Your task to perform on an android device: Is it going to rain today? Image 0: 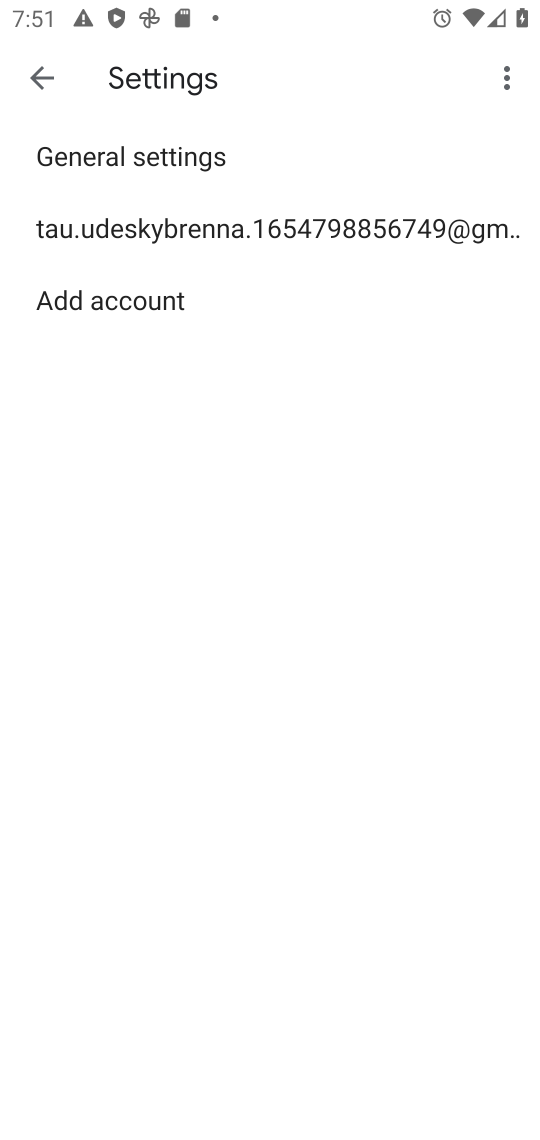
Step 0: press home button
Your task to perform on an android device: Is it going to rain today? Image 1: 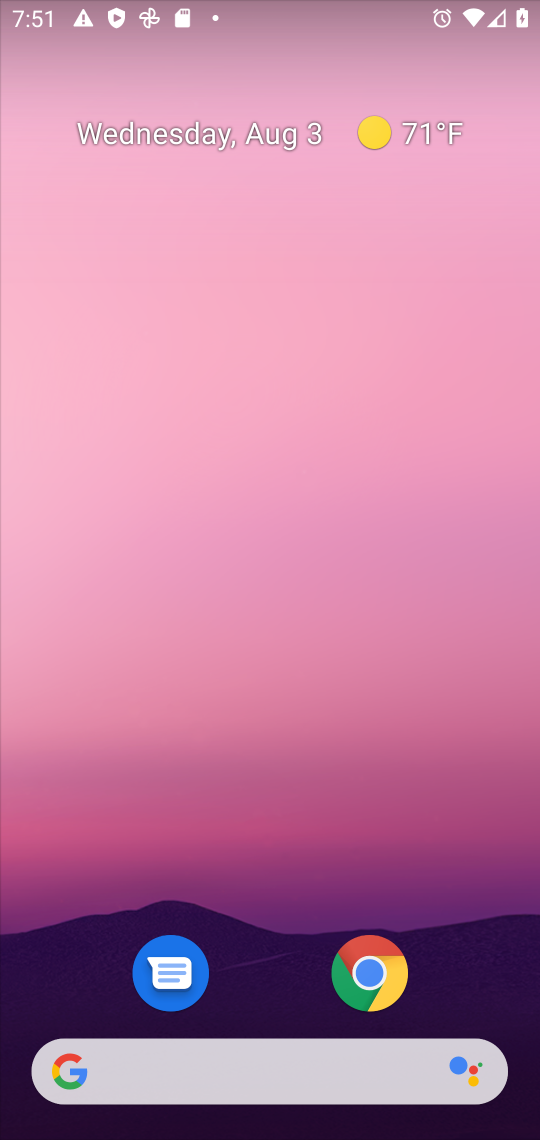
Step 1: click (185, 1089)
Your task to perform on an android device: Is it going to rain today? Image 2: 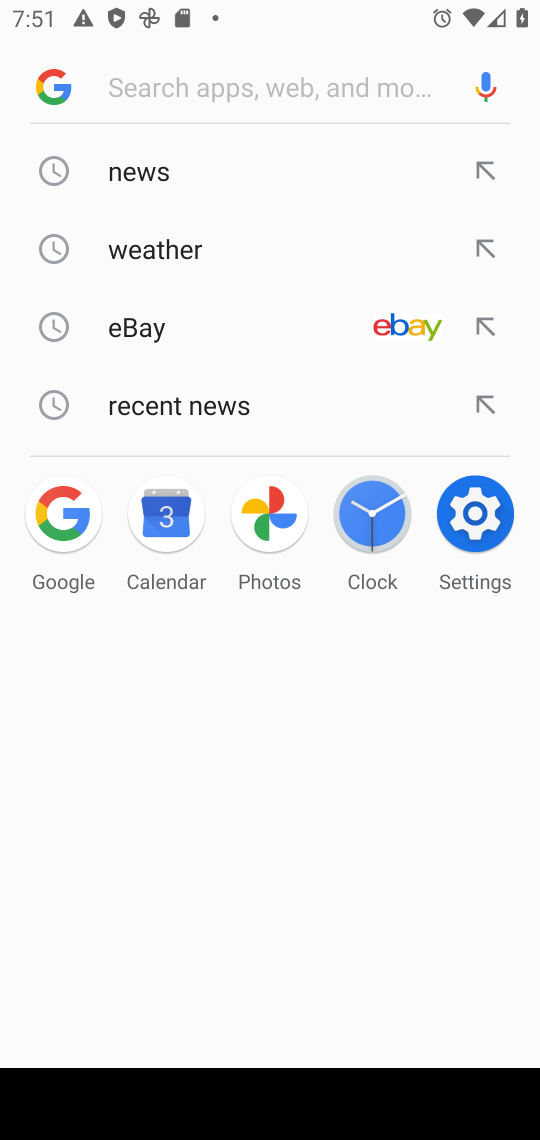
Step 2: click (129, 252)
Your task to perform on an android device: Is it going to rain today? Image 3: 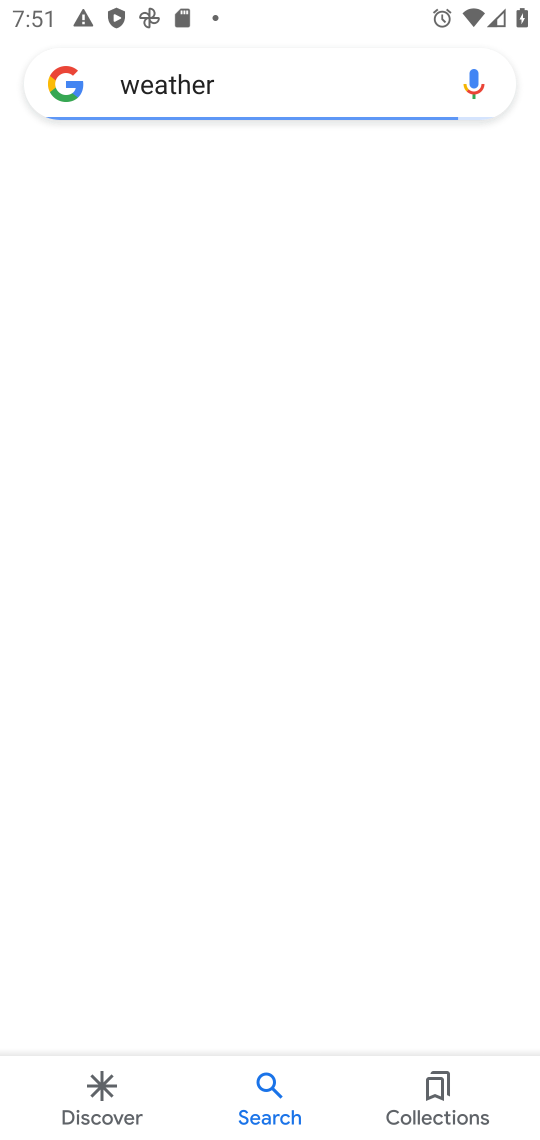
Step 3: drag from (129, 252) to (35, 367)
Your task to perform on an android device: Is it going to rain today? Image 4: 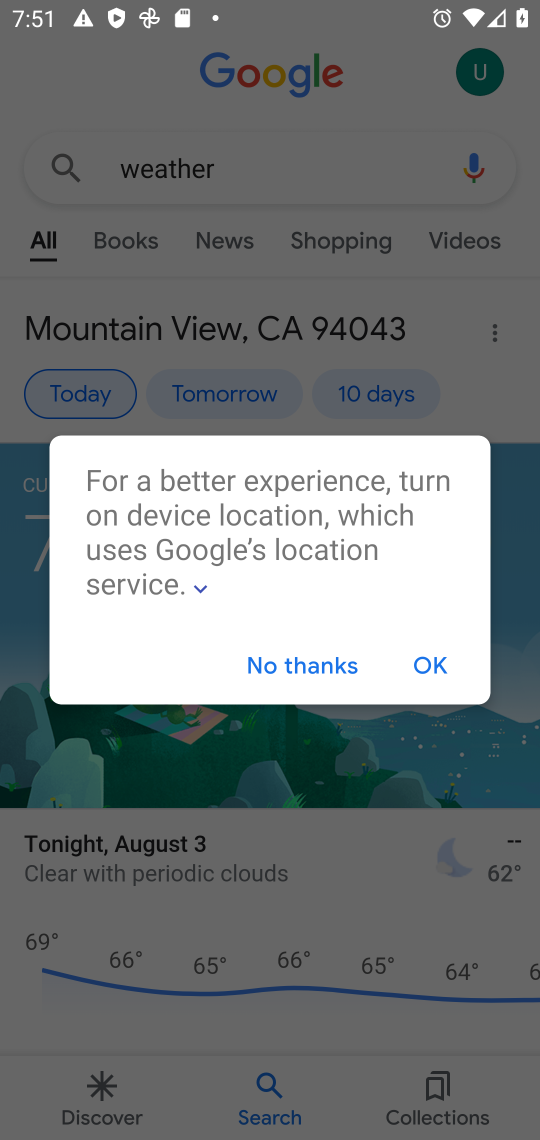
Step 4: click (357, 669)
Your task to perform on an android device: Is it going to rain today? Image 5: 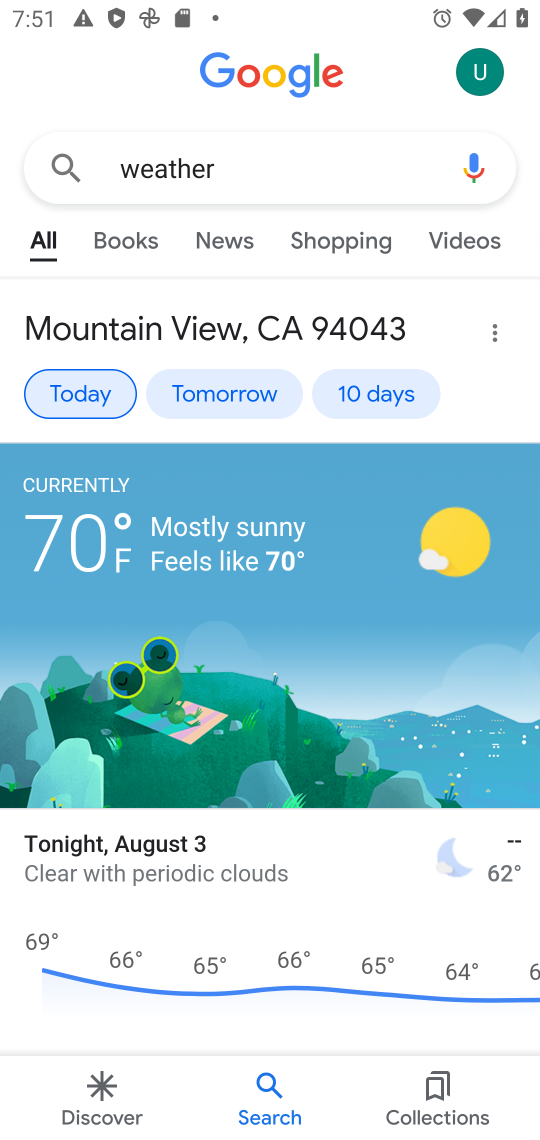
Step 5: task complete